Your task to perform on an android device: move a message to another label in the gmail app Image 0: 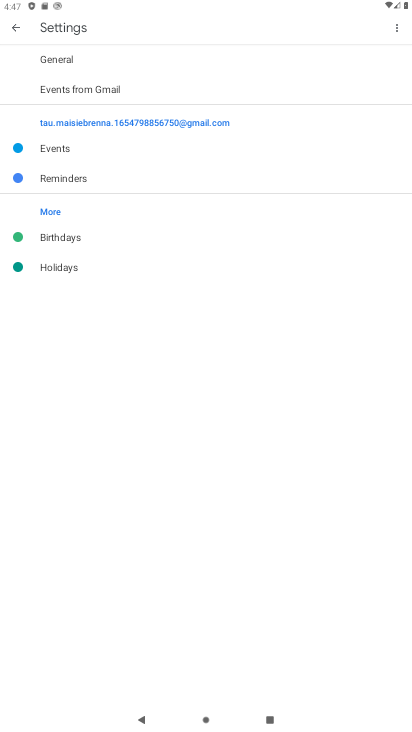
Step 0: press home button
Your task to perform on an android device: move a message to another label in the gmail app Image 1: 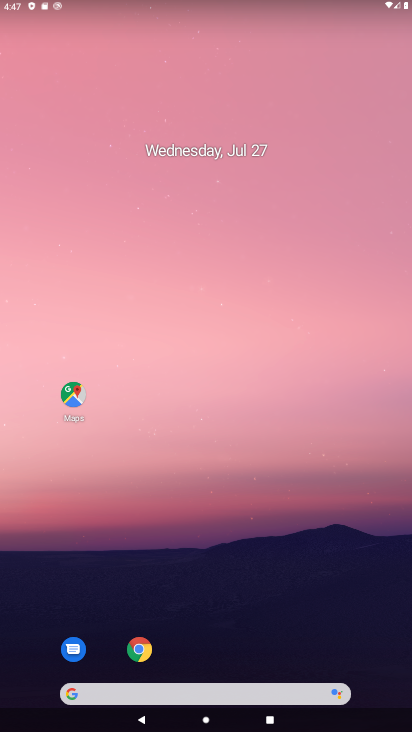
Step 1: drag from (199, 690) to (220, 9)
Your task to perform on an android device: move a message to another label in the gmail app Image 2: 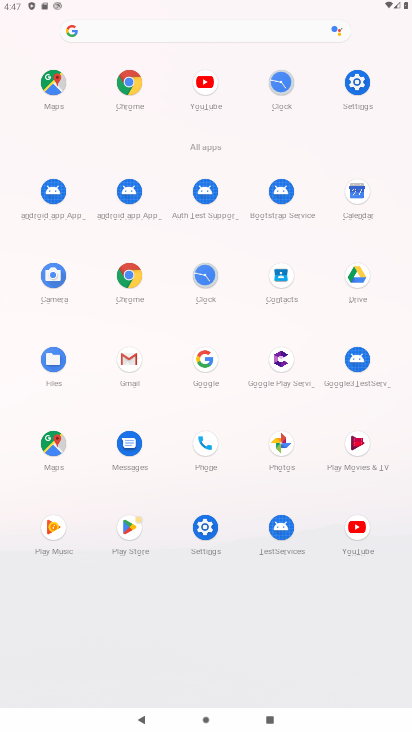
Step 2: click (127, 359)
Your task to perform on an android device: move a message to another label in the gmail app Image 3: 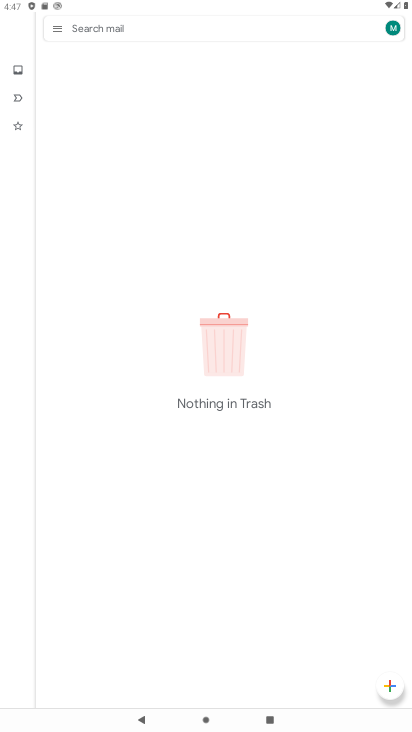
Step 3: click (59, 27)
Your task to perform on an android device: move a message to another label in the gmail app Image 4: 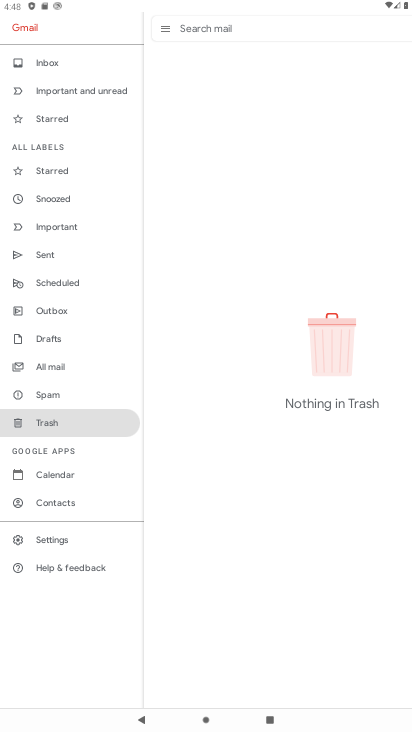
Step 4: click (59, 367)
Your task to perform on an android device: move a message to another label in the gmail app Image 5: 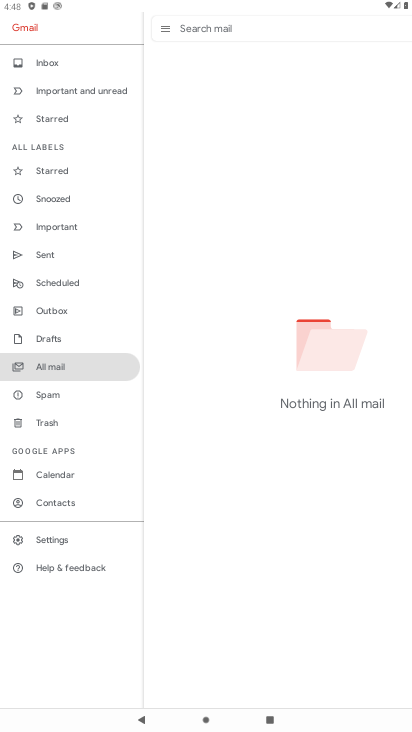
Step 5: click (46, 62)
Your task to perform on an android device: move a message to another label in the gmail app Image 6: 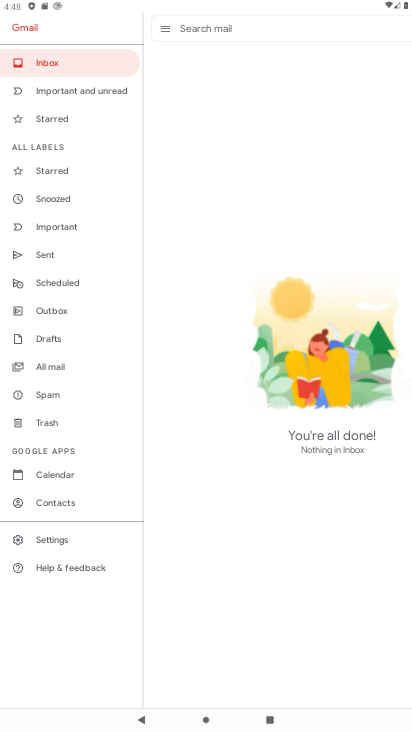
Step 6: click (51, 94)
Your task to perform on an android device: move a message to another label in the gmail app Image 7: 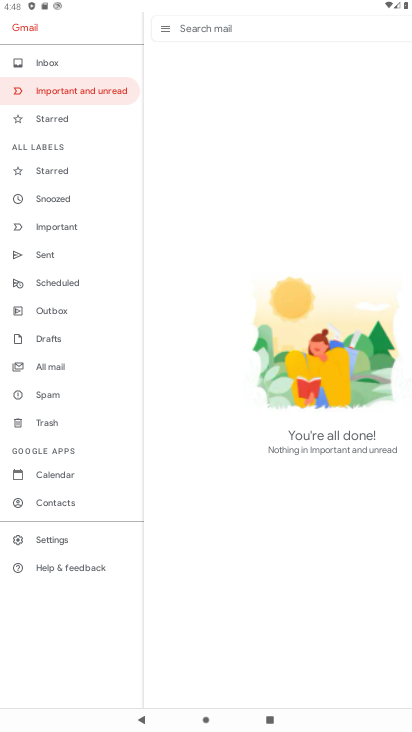
Step 7: click (54, 116)
Your task to perform on an android device: move a message to another label in the gmail app Image 8: 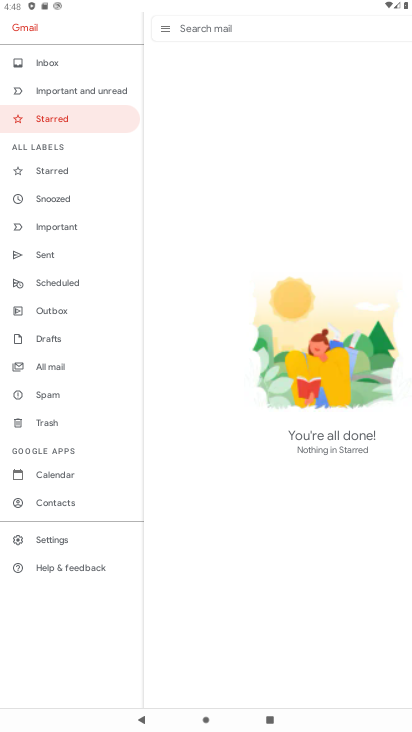
Step 8: click (57, 168)
Your task to perform on an android device: move a message to another label in the gmail app Image 9: 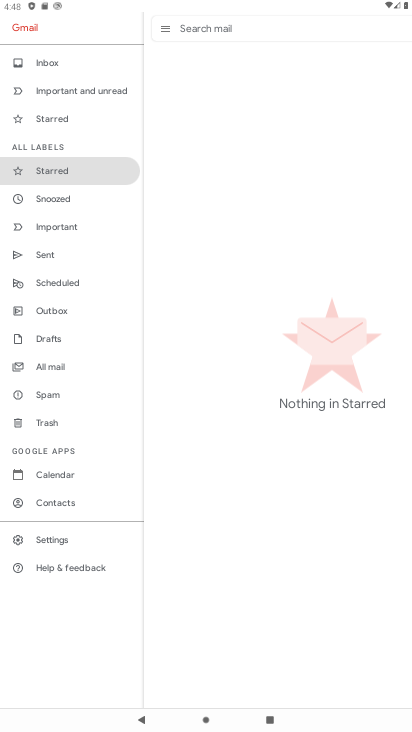
Step 9: click (58, 189)
Your task to perform on an android device: move a message to another label in the gmail app Image 10: 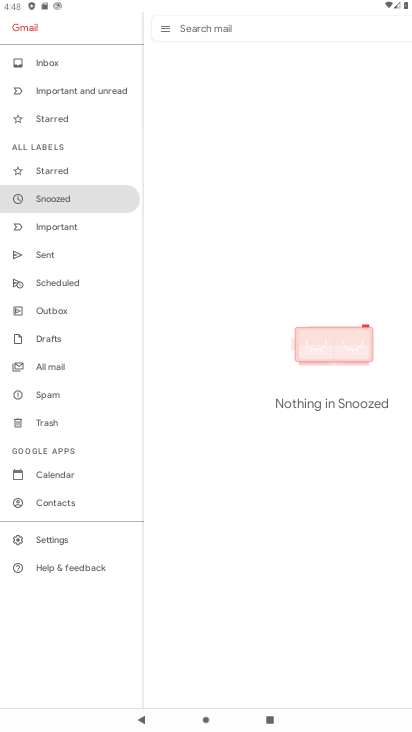
Step 10: click (60, 227)
Your task to perform on an android device: move a message to another label in the gmail app Image 11: 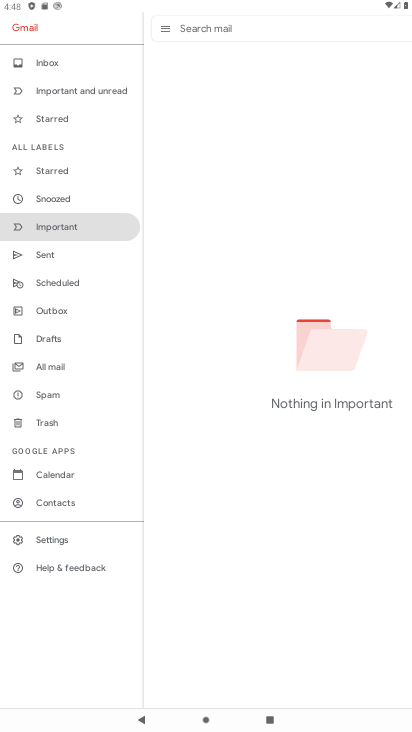
Step 11: click (47, 258)
Your task to perform on an android device: move a message to another label in the gmail app Image 12: 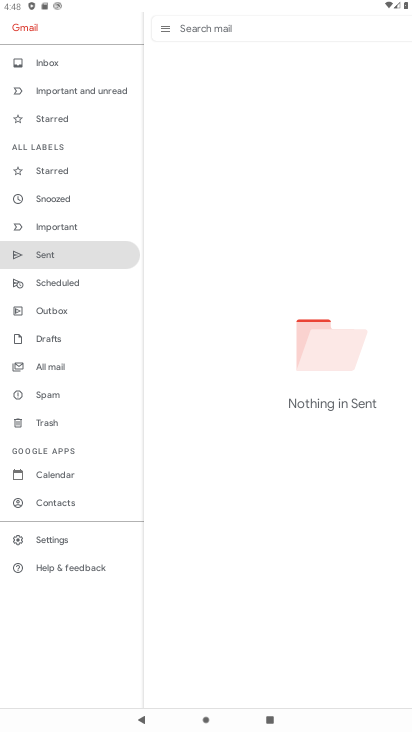
Step 12: click (43, 281)
Your task to perform on an android device: move a message to another label in the gmail app Image 13: 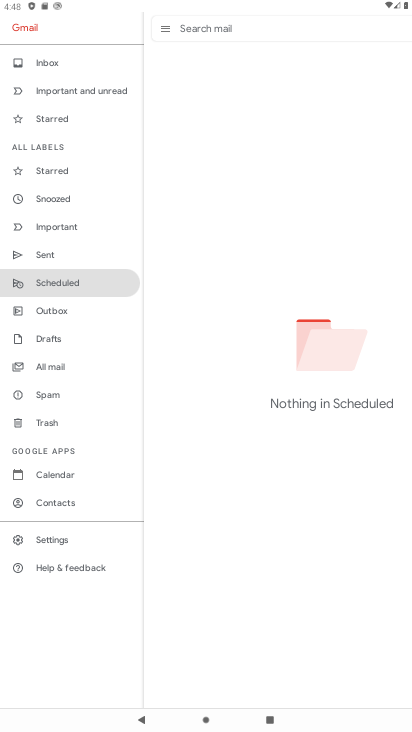
Step 13: click (44, 311)
Your task to perform on an android device: move a message to another label in the gmail app Image 14: 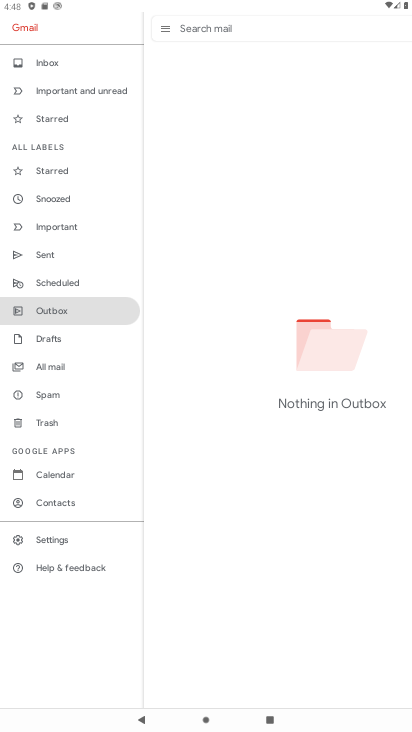
Step 14: click (45, 334)
Your task to perform on an android device: move a message to another label in the gmail app Image 15: 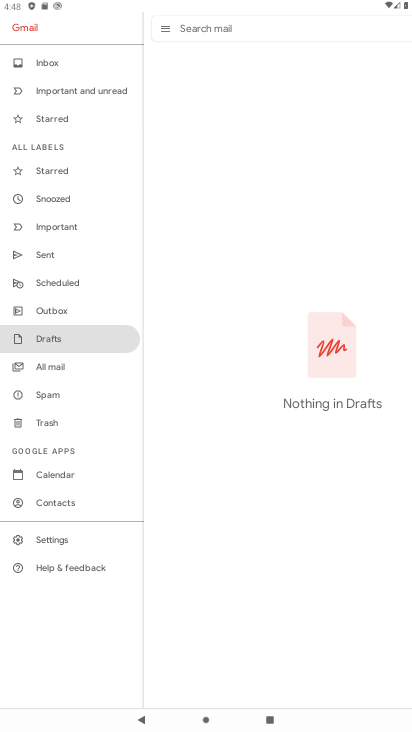
Step 15: click (48, 360)
Your task to perform on an android device: move a message to another label in the gmail app Image 16: 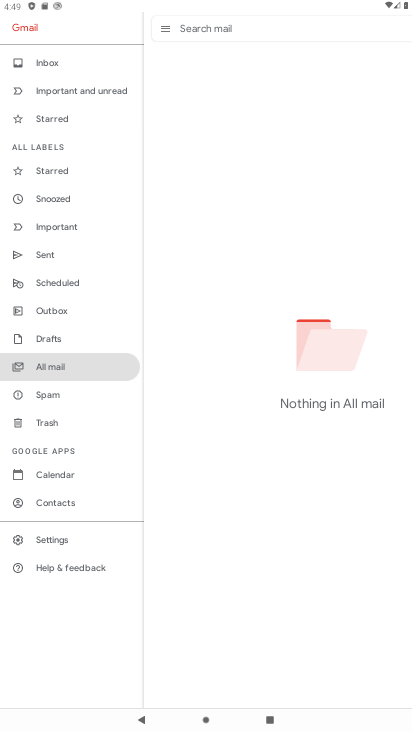
Step 16: click (48, 389)
Your task to perform on an android device: move a message to another label in the gmail app Image 17: 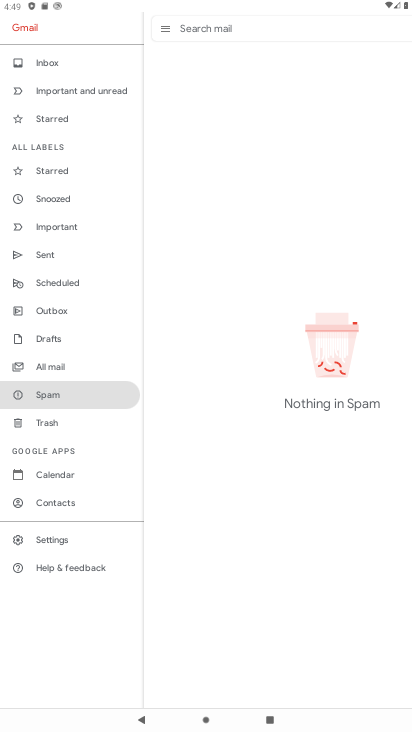
Step 17: click (45, 422)
Your task to perform on an android device: move a message to another label in the gmail app Image 18: 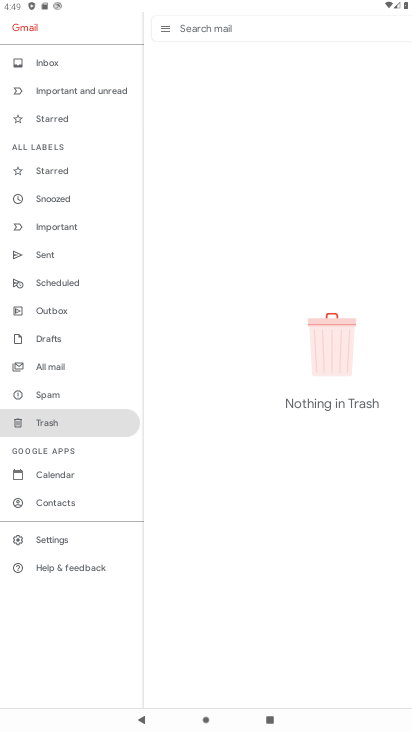
Step 18: task complete